Your task to perform on an android device: empty trash in google photos Image 0: 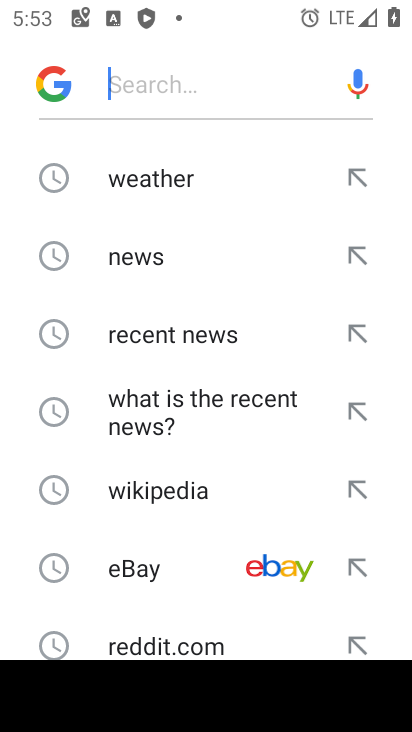
Step 0: press home button
Your task to perform on an android device: empty trash in google photos Image 1: 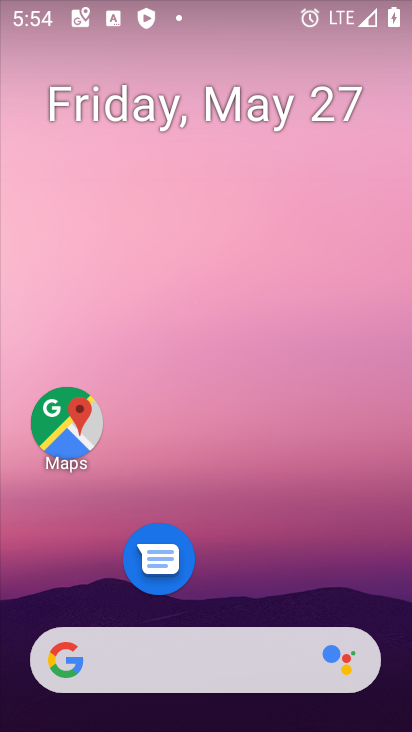
Step 1: drag from (258, 649) to (340, 29)
Your task to perform on an android device: empty trash in google photos Image 2: 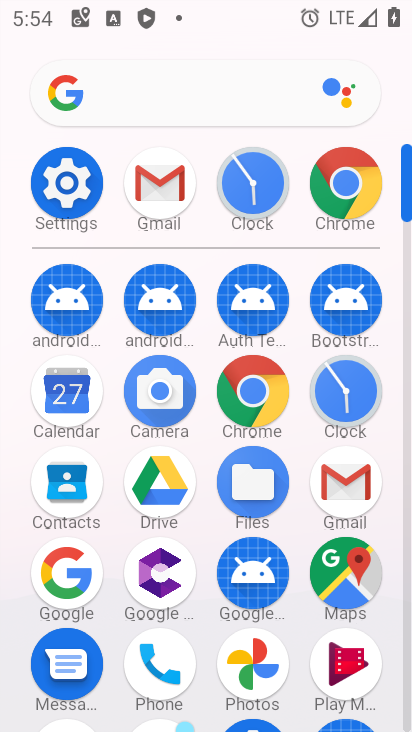
Step 2: click (265, 660)
Your task to perform on an android device: empty trash in google photos Image 3: 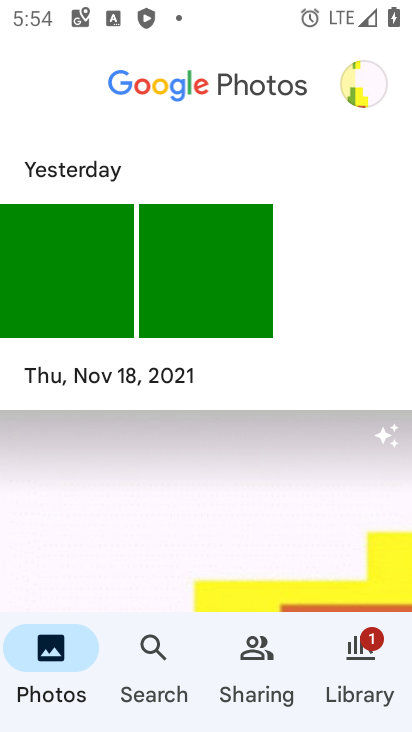
Step 3: click (363, 86)
Your task to perform on an android device: empty trash in google photos Image 4: 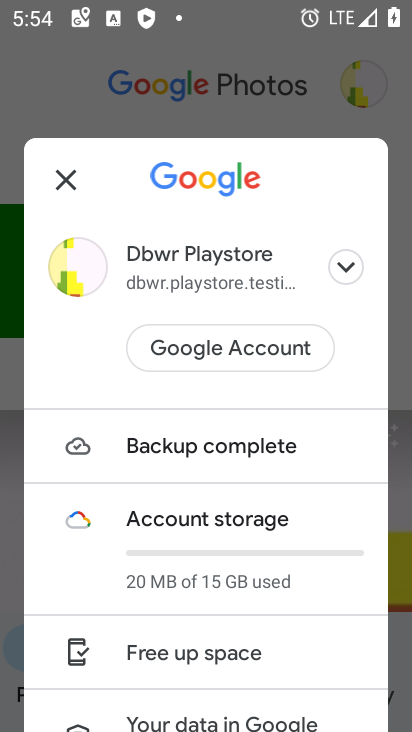
Step 4: click (65, 179)
Your task to perform on an android device: empty trash in google photos Image 5: 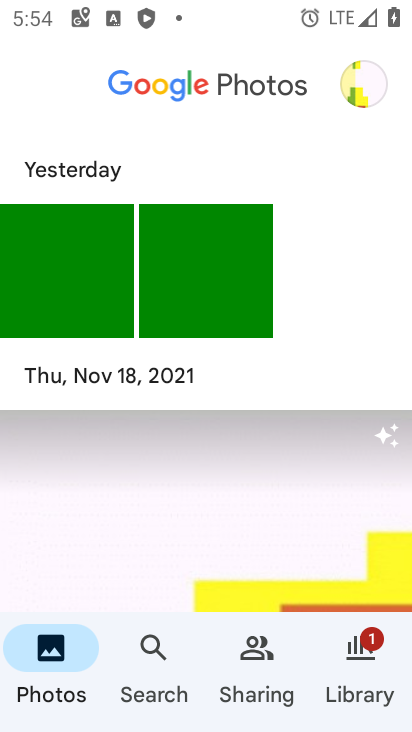
Step 5: click (364, 666)
Your task to perform on an android device: empty trash in google photos Image 6: 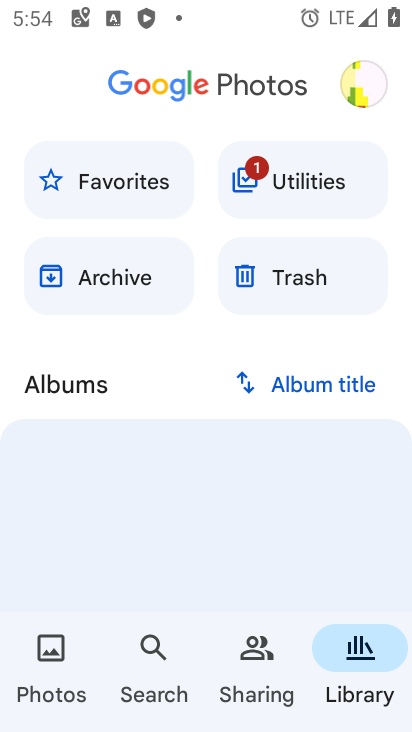
Step 6: click (304, 284)
Your task to perform on an android device: empty trash in google photos Image 7: 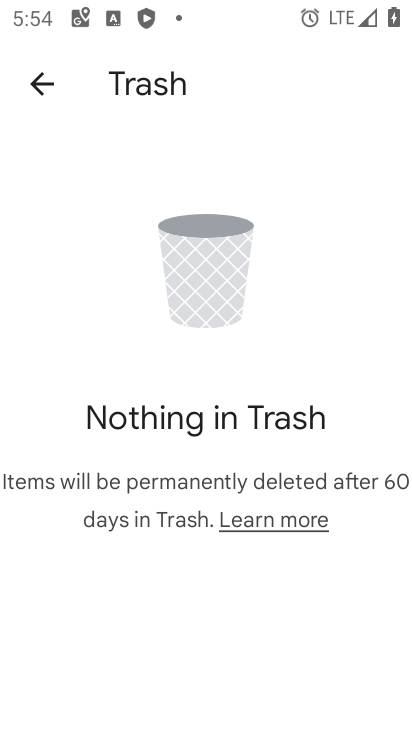
Step 7: task complete